Your task to perform on an android device: turn on sleep mode Image 0: 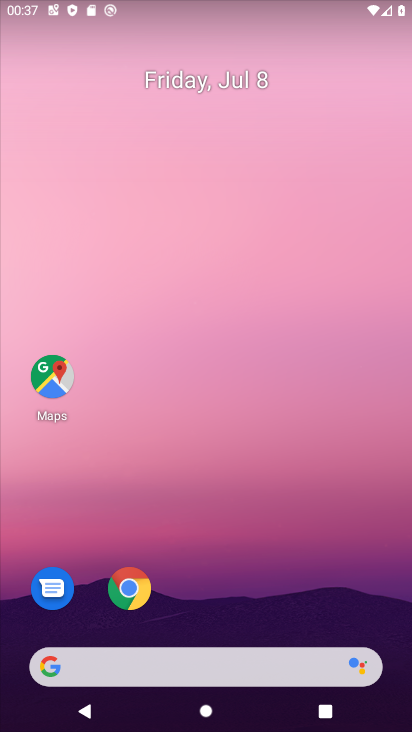
Step 0: drag from (168, 609) to (196, 97)
Your task to perform on an android device: turn on sleep mode Image 1: 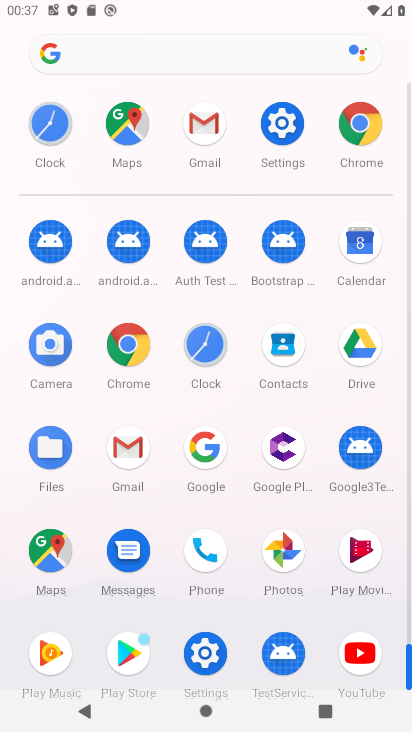
Step 1: click (273, 121)
Your task to perform on an android device: turn on sleep mode Image 2: 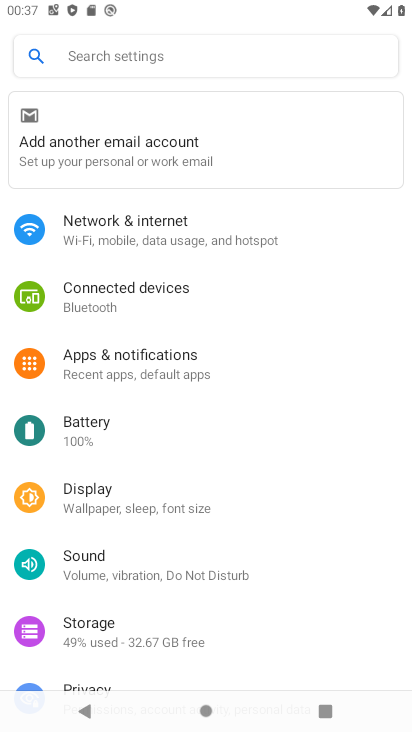
Step 2: click (153, 57)
Your task to perform on an android device: turn on sleep mode Image 3: 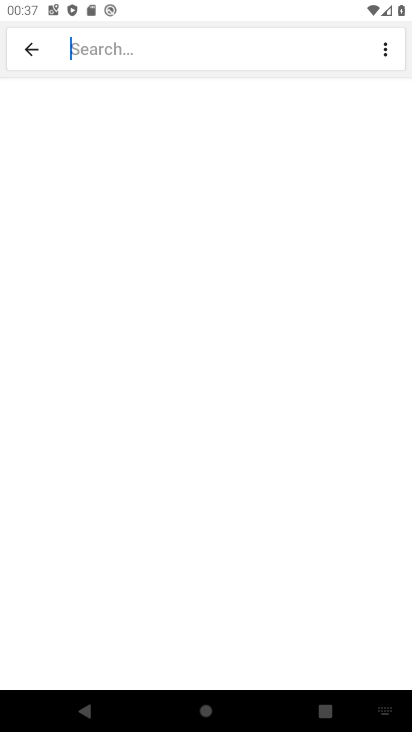
Step 3: type "sleep mode"
Your task to perform on an android device: turn on sleep mode Image 4: 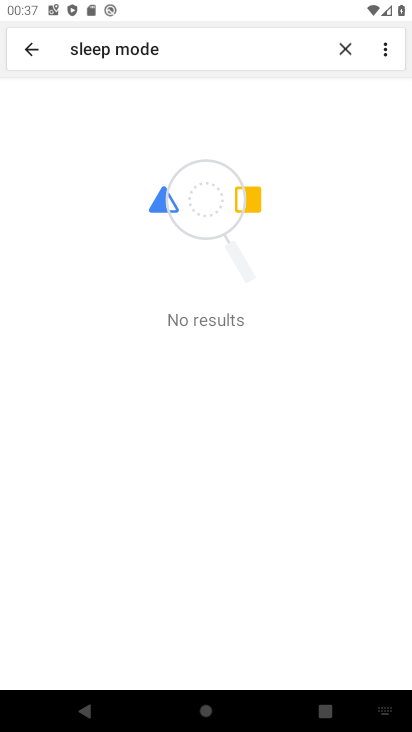
Step 4: click (346, 48)
Your task to perform on an android device: turn on sleep mode Image 5: 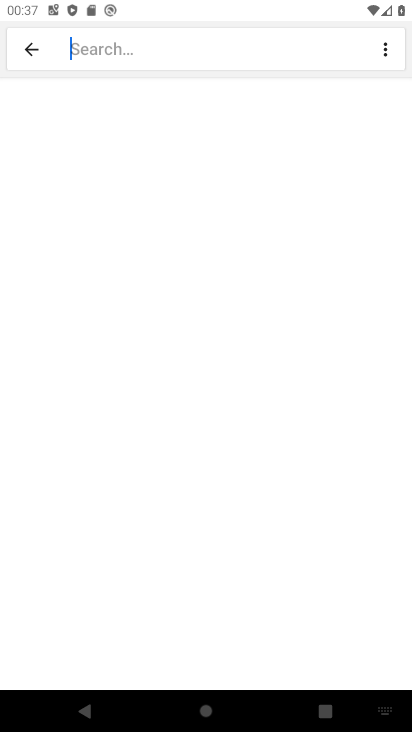
Step 5: click (29, 48)
Your task to perform on an android device: turn on sleep mode Image 6: 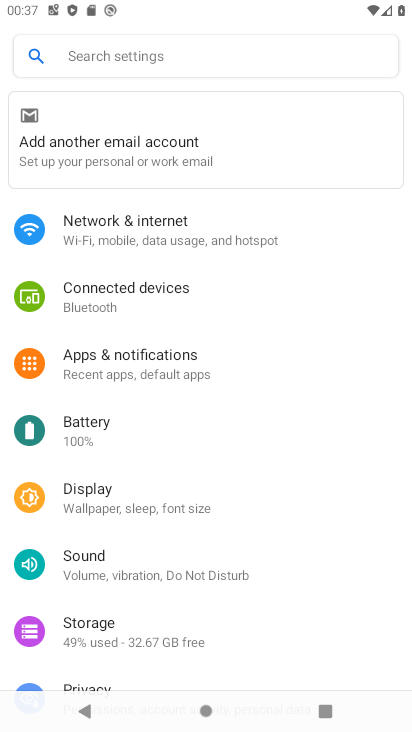
Step 6: click (90, 490)
Your task to perform on an android device: turn on sleep mode Image 7: 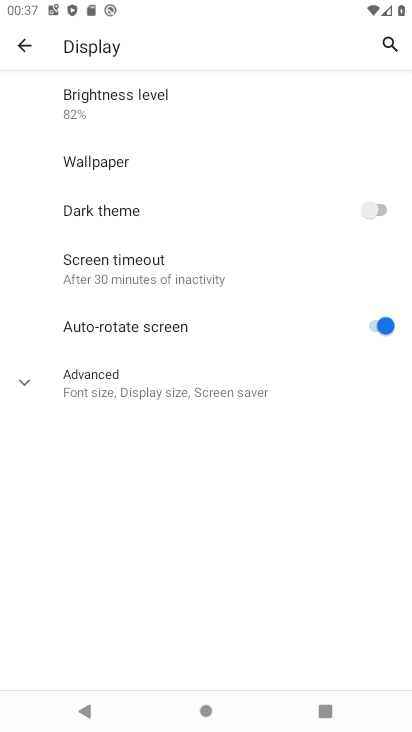
Step 7: click (137, 387)
Your task to perform on an android device: turn on sleep mode Image 8: 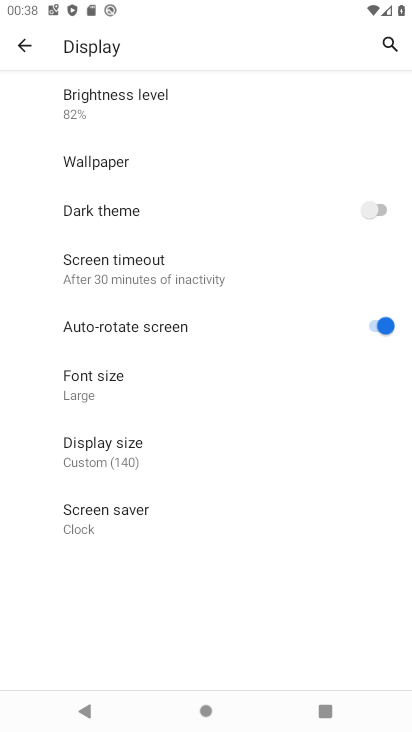
Step 8: click (160, 266)
Your task to perform on an android device: turn on sleep mode Image 9: 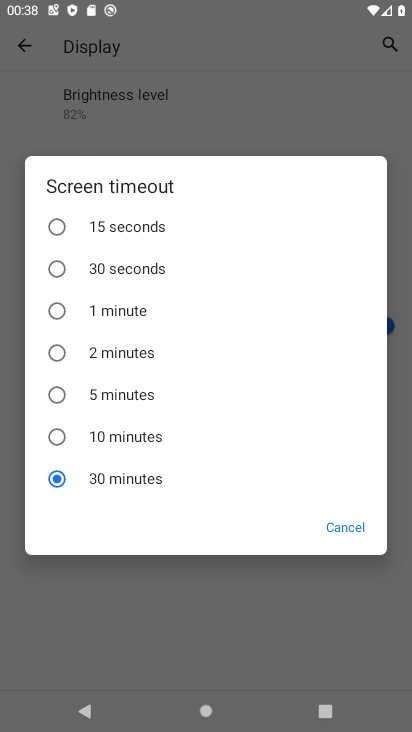
Step 9: task complete